Your task to perform on an android device: show emergency info Image 0: 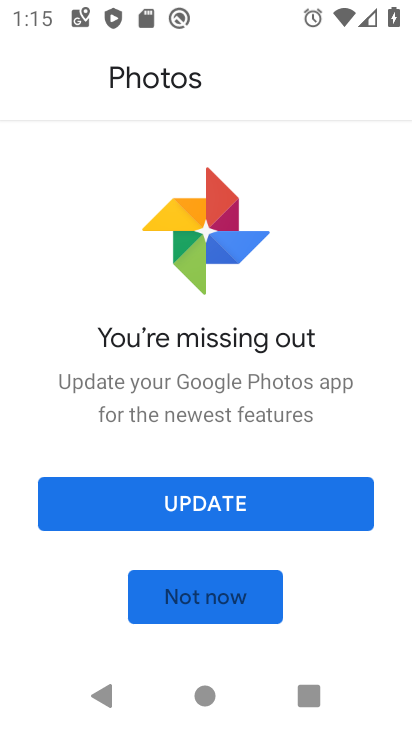
Step 0: press home button
Your task to perform on an android device: show emergency info Image 1: 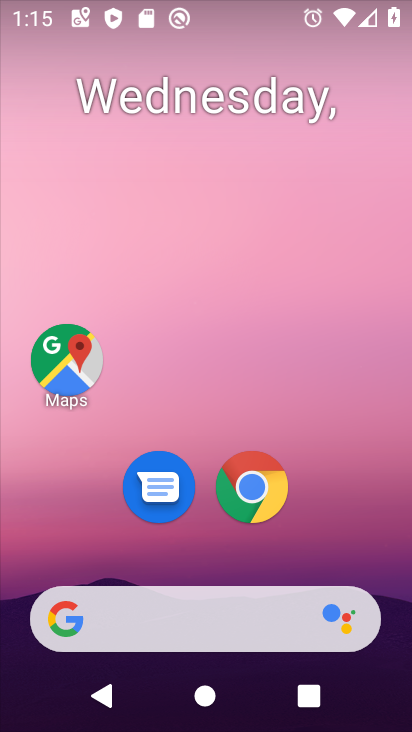
Step 1: drag from (188, 529) to (313, 19)
Your task to perform on an android device: show emergency info Image 2: 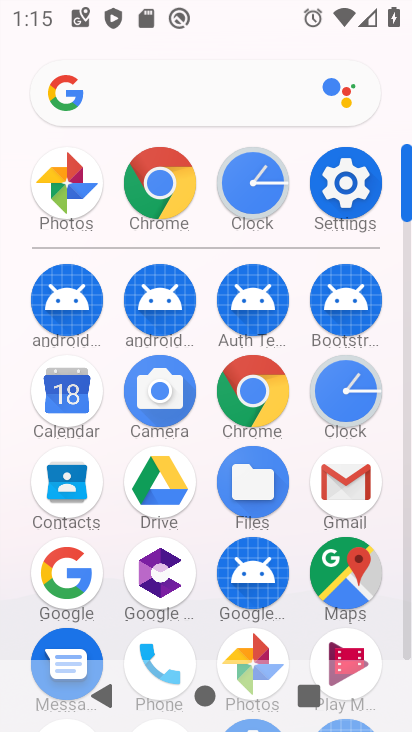
Step 2: click (360, 190)
Your task to perform on an android device: show emergency info Image 3: 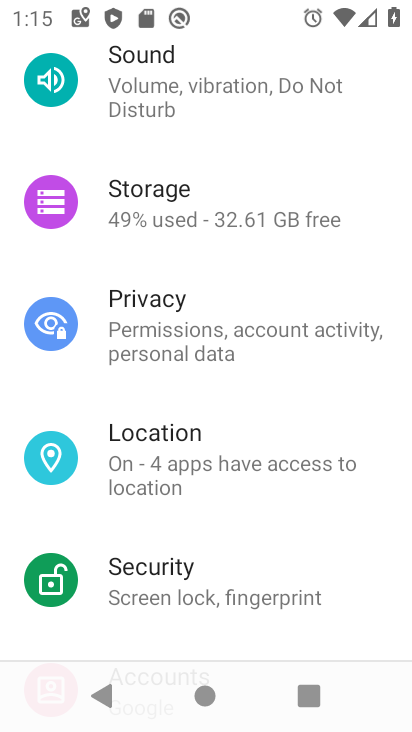
Step 3: drag from (234, 542) to (313, 27)
Your task to perform on an android device: show emergency info Image 4: 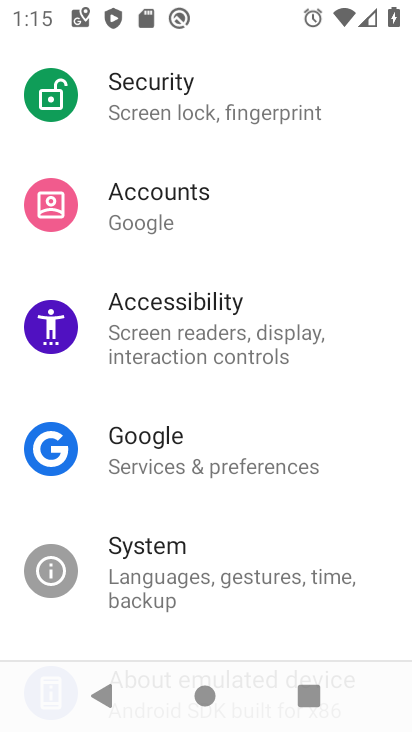
Step 4: drag from (198, 551) to (275, 239)
Your task to perform on an android device: show emergency info Image 5: 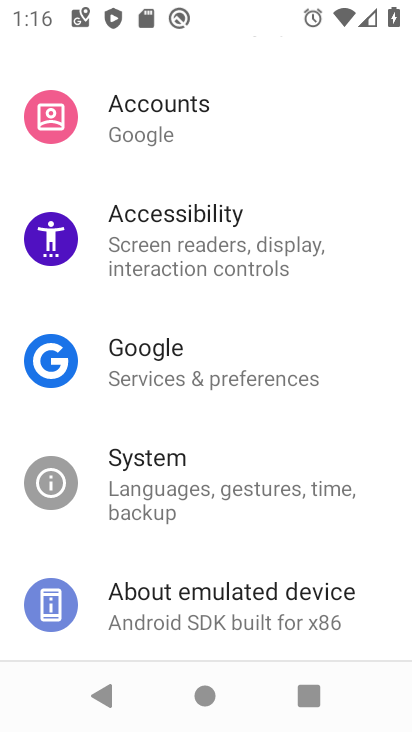
Step 5: click (195, 610)
Your task to perform on an android device: show emergency info Image 6: 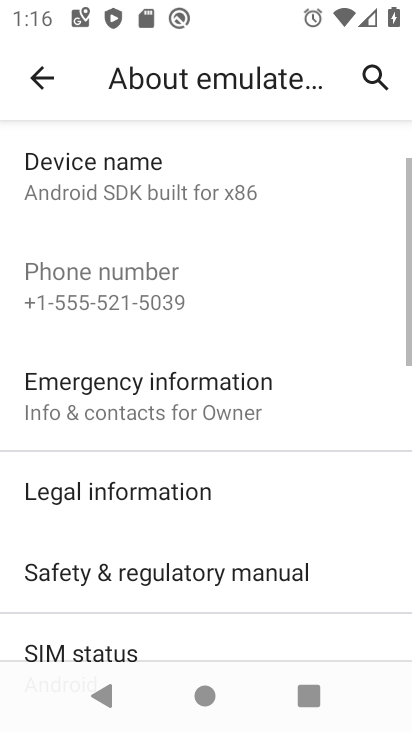
Step 6: click (180, 385)
Your task to perform on an android device: show emergency info Image 7: 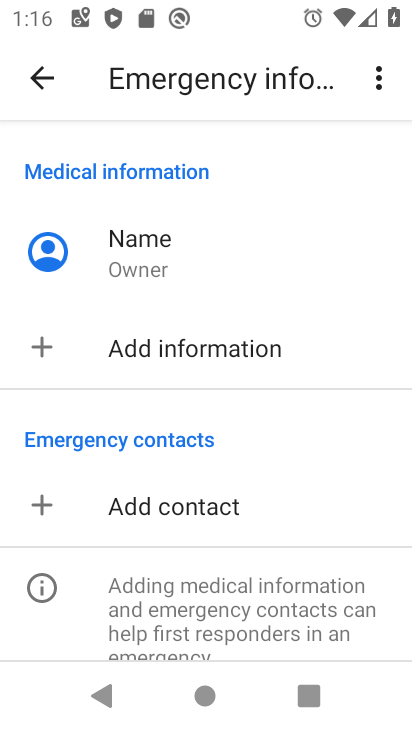
Step 7: task complete